Your task to perform on an android device: find which apps use the phone's location Image 0: 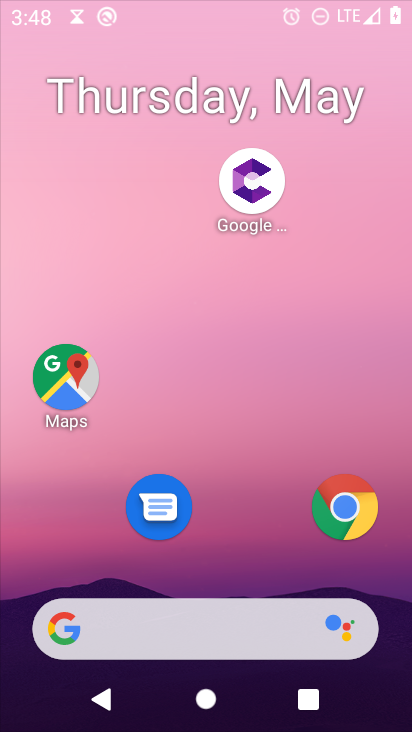
Step 0: press home button
Your task to perform on an android device: find which apps use the phone's location Image 1: 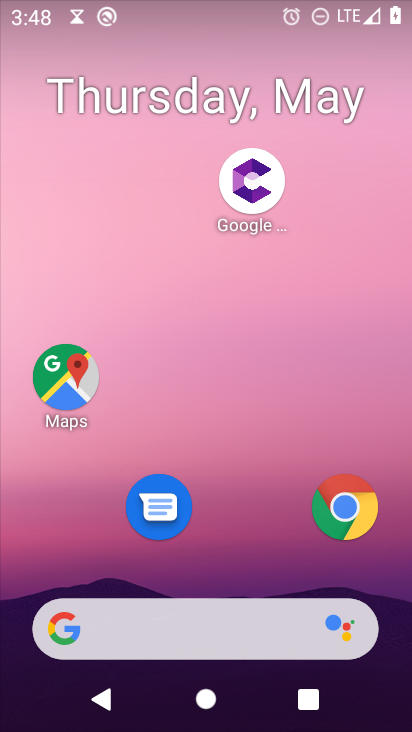
Step 1: drag from (297, 577) to (312, 84)
Your task to perform on an android device: find which apps use the phone's location Image 2: 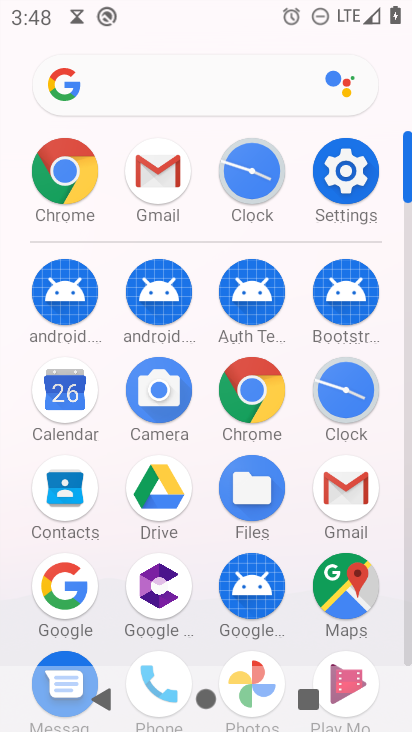
Step 2: click (343, 180)
Your task to perform on an android device: find which apps use the phone's location Image 3: 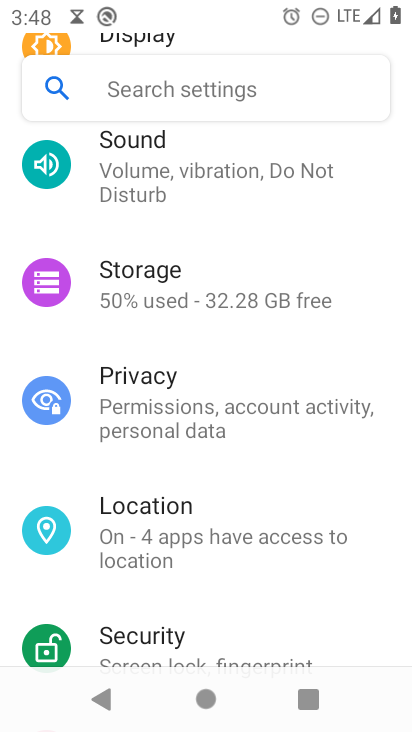
Step 3: click (203, 511)
Your task to perform on an android device: find which apps use the phone's location Image 4: 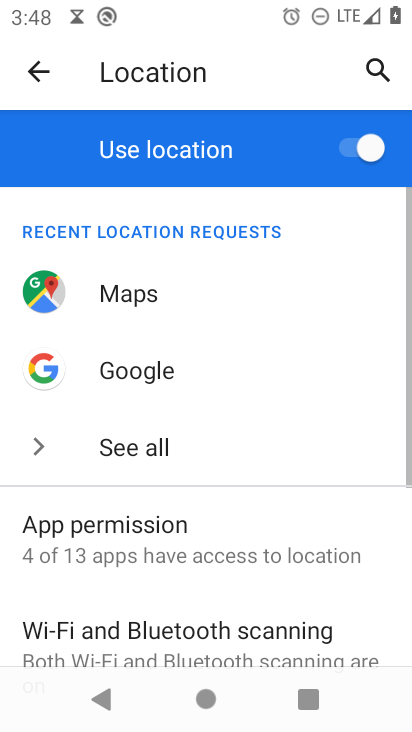
Step 4: click (93, 523)
Your task to perform on an android device: find which apps use the phone's location Image 5: 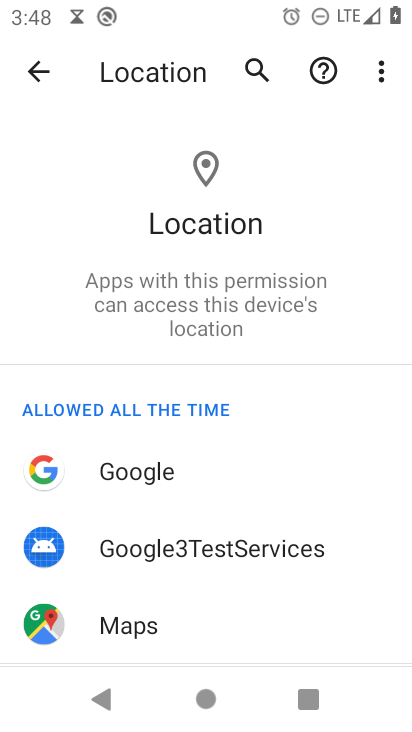
Step 5: task complete